Your task to perform on an android device: open app "Google Home" (install if not already installed) Image 0: 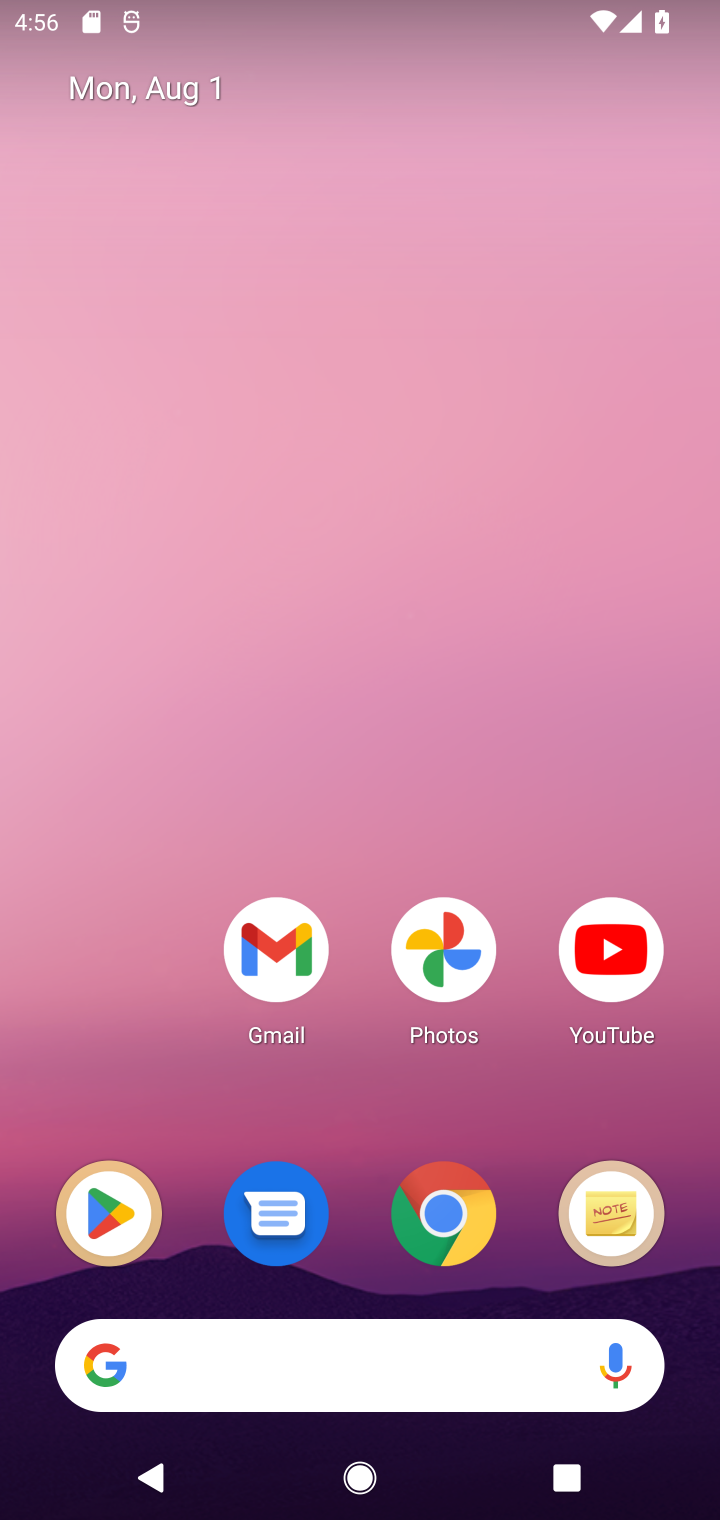
Step 0: drag from (521, 576) to (513, 0)
Your task to perform on an android device: open app "Google Home" (install if not already installed) Image 1: 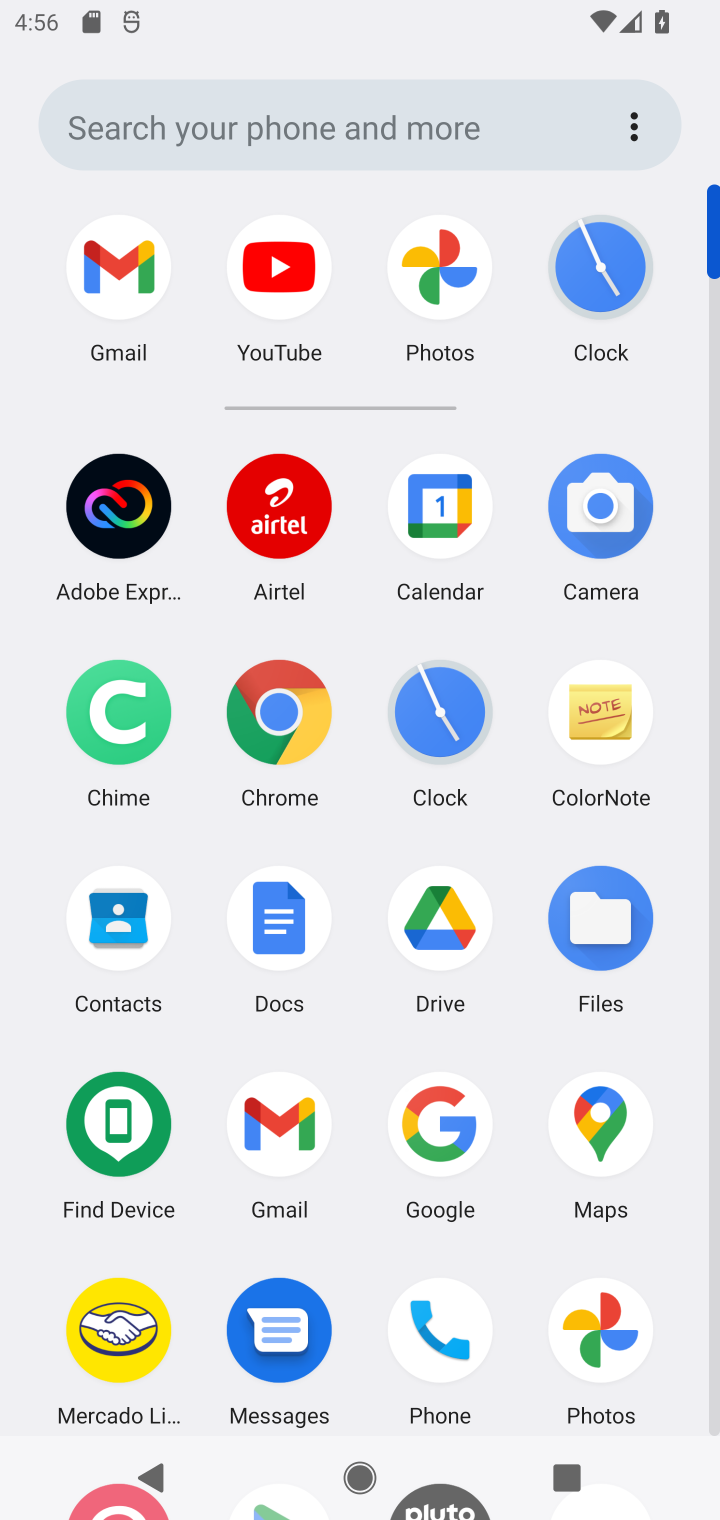
Step 1: drag from (515, 1172) to (514, 301)
Your task to perform on an android device: open app "Google Home" (install if not already installed) Image 2: 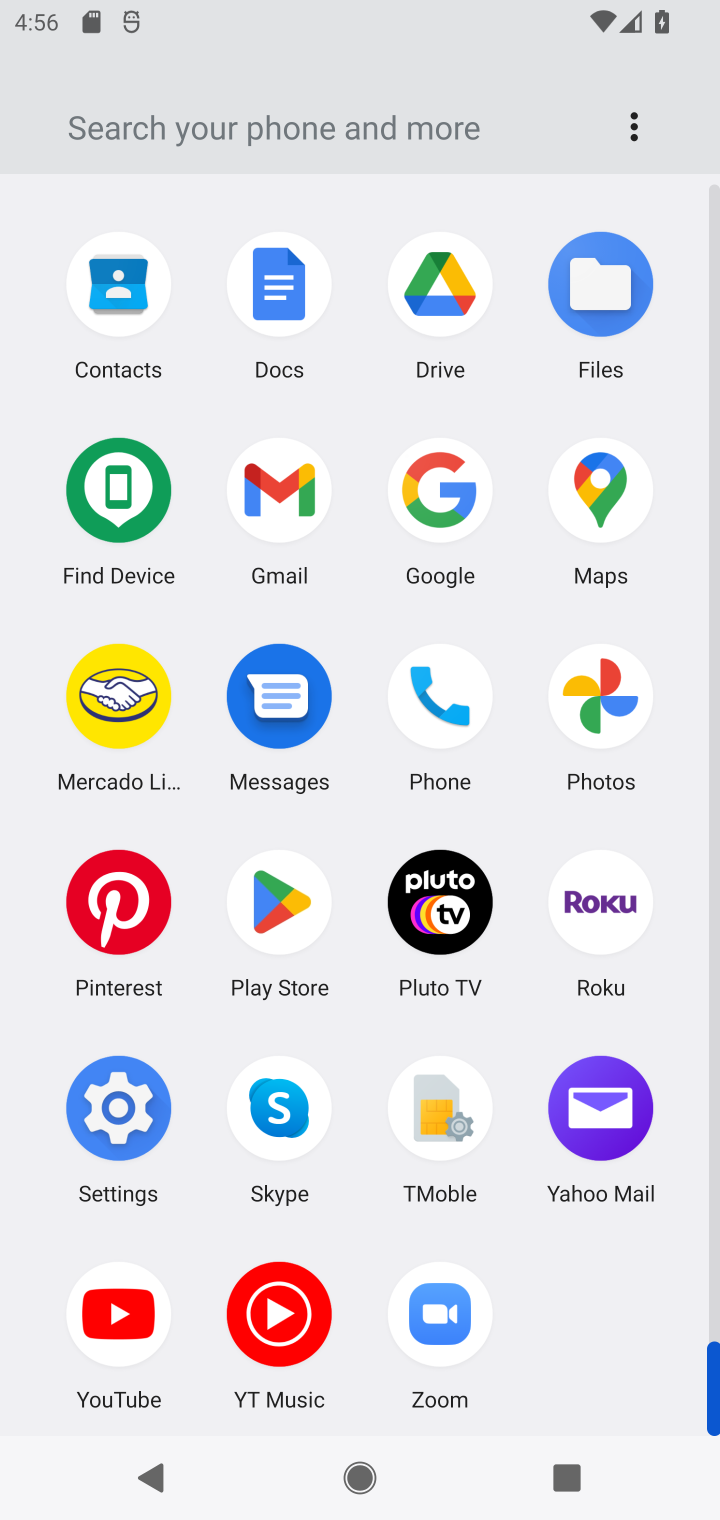
Step 2: click (299, 900)
Your task to perform on an android device: open app "Google Home" (install if not already installed) Image 3: 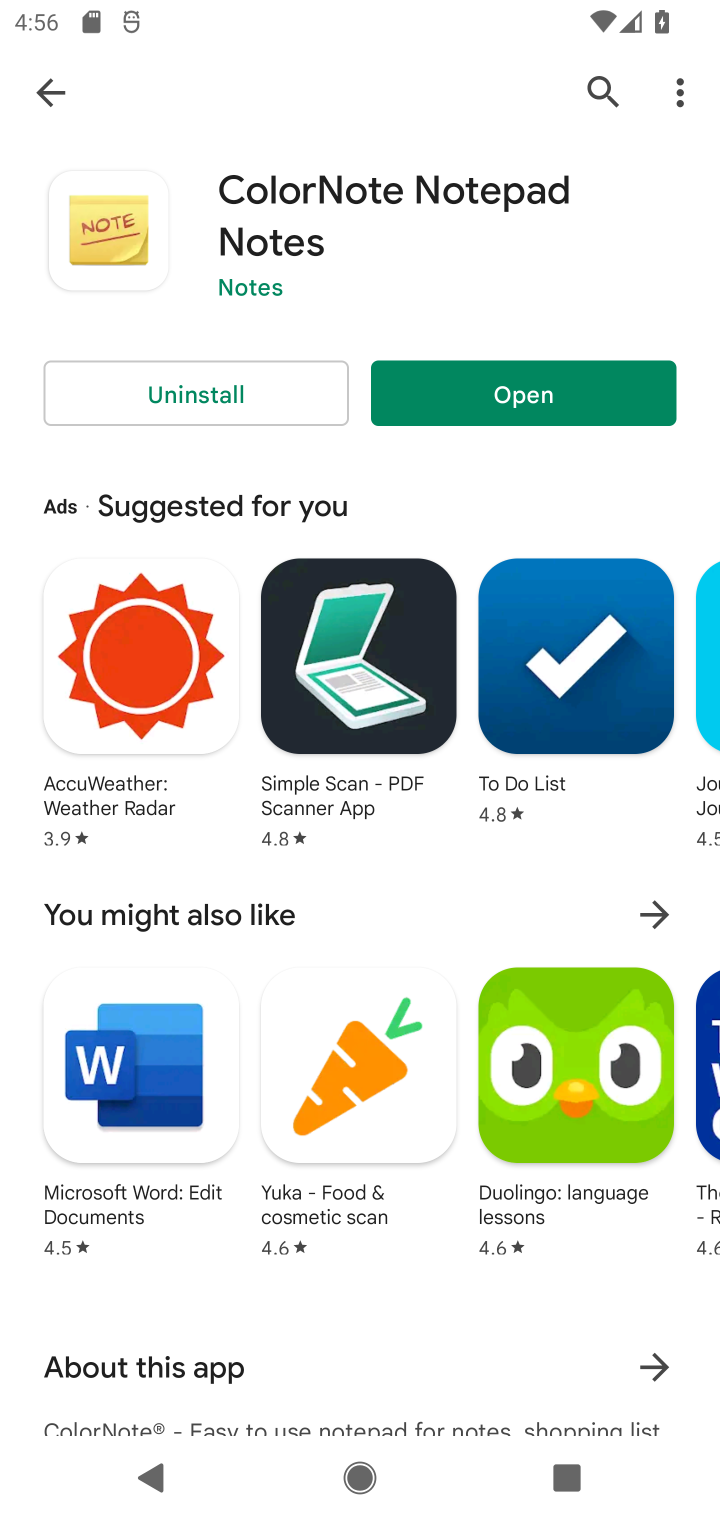
Step 3: click (612, 96)
Your task to perform on an android device: open app "Google Home" (install if not already installed) Image 4: 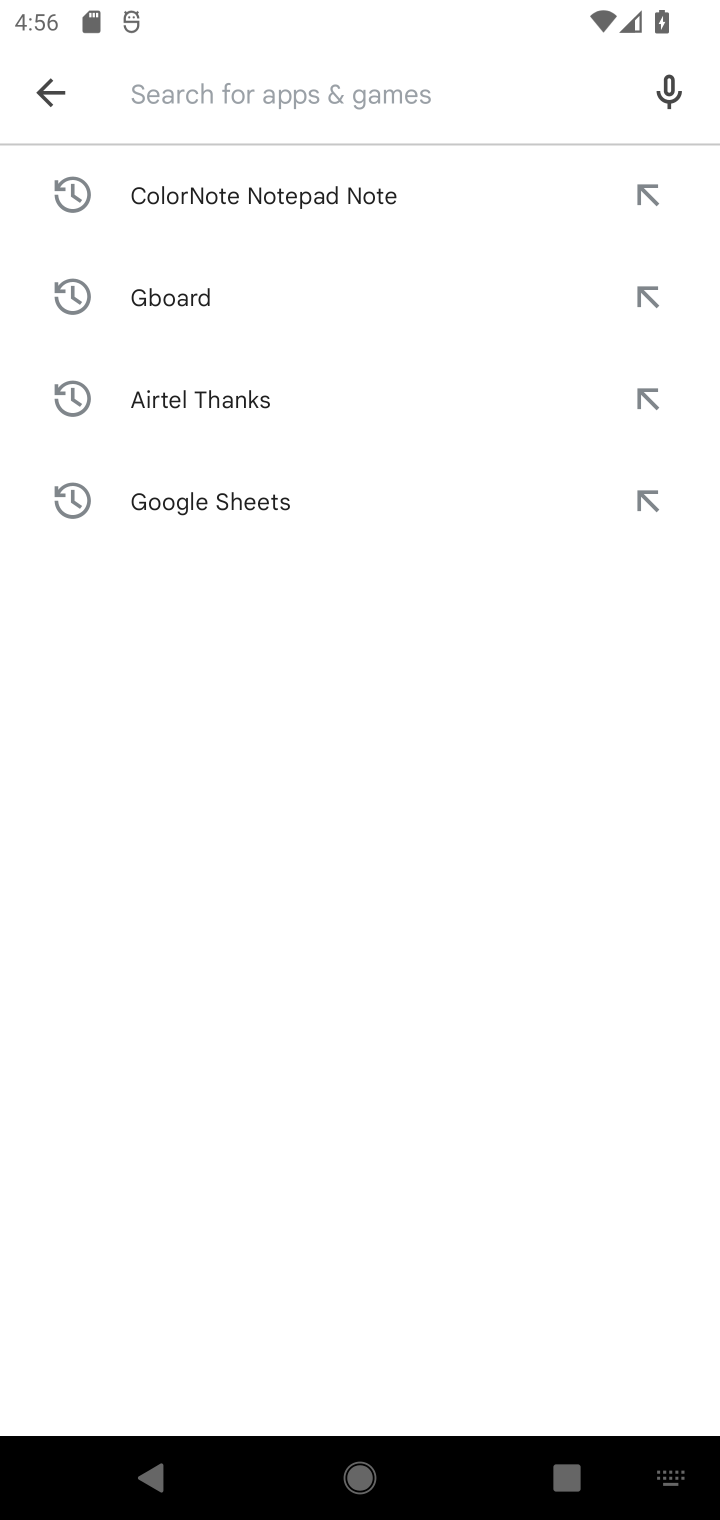
Step 4: type "Google Home"
Your task to perform on an android device: open app "Google Home" (install if not already installed) Image 5: 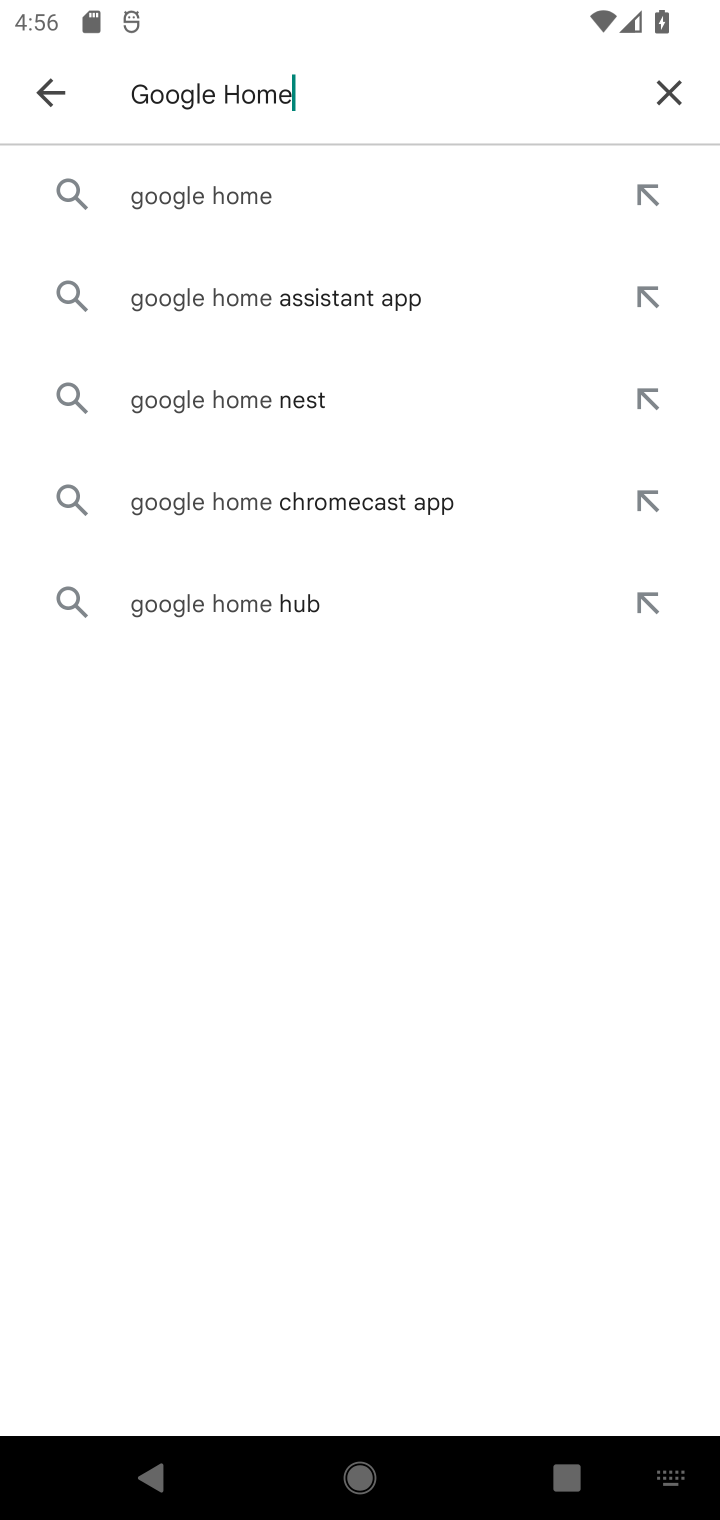
Step 5: press enter
Your task to perform on an android device: open app "Google Home" (install if not already installed) Image 6: 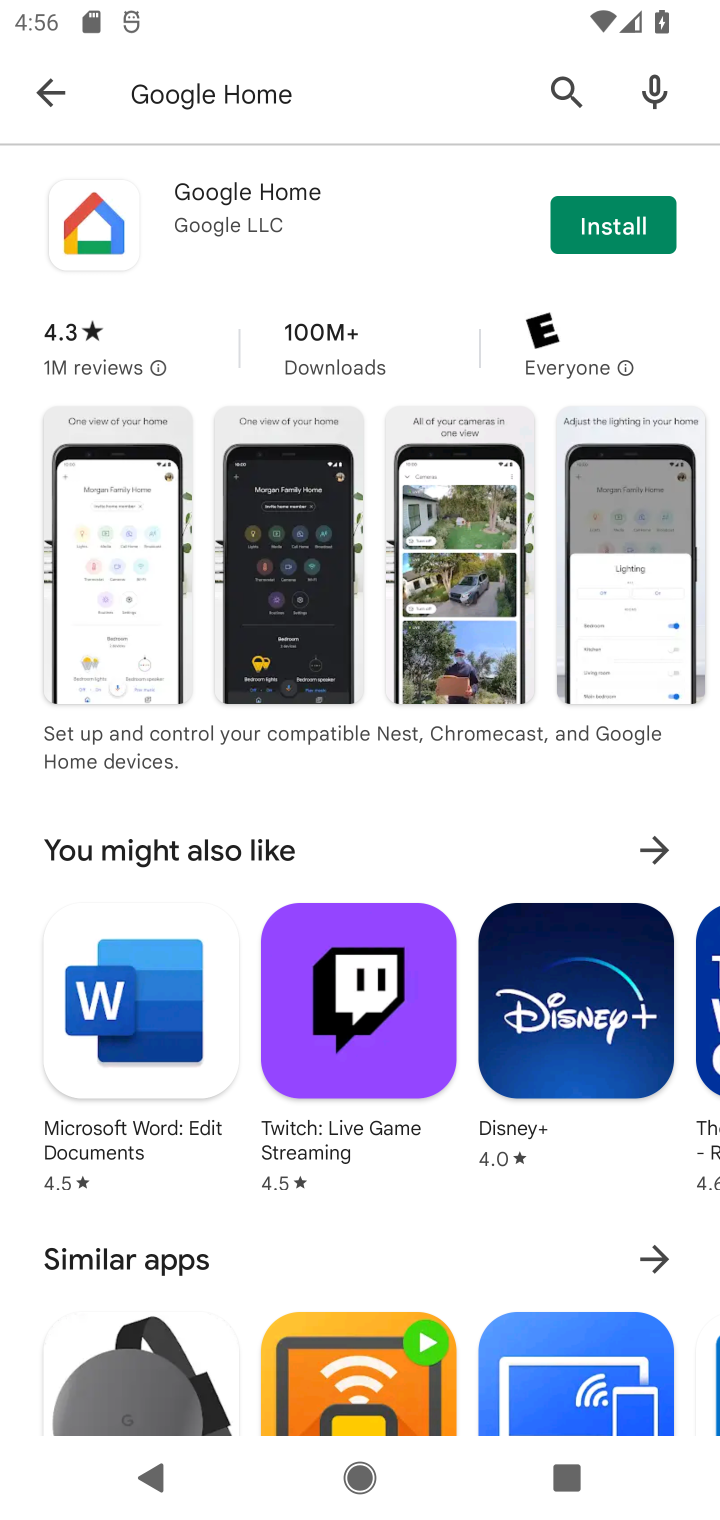
Step 6: click (395, 225)
Your task to perform on an android device: open app "Google Home" (install if not already installed) Image 7: 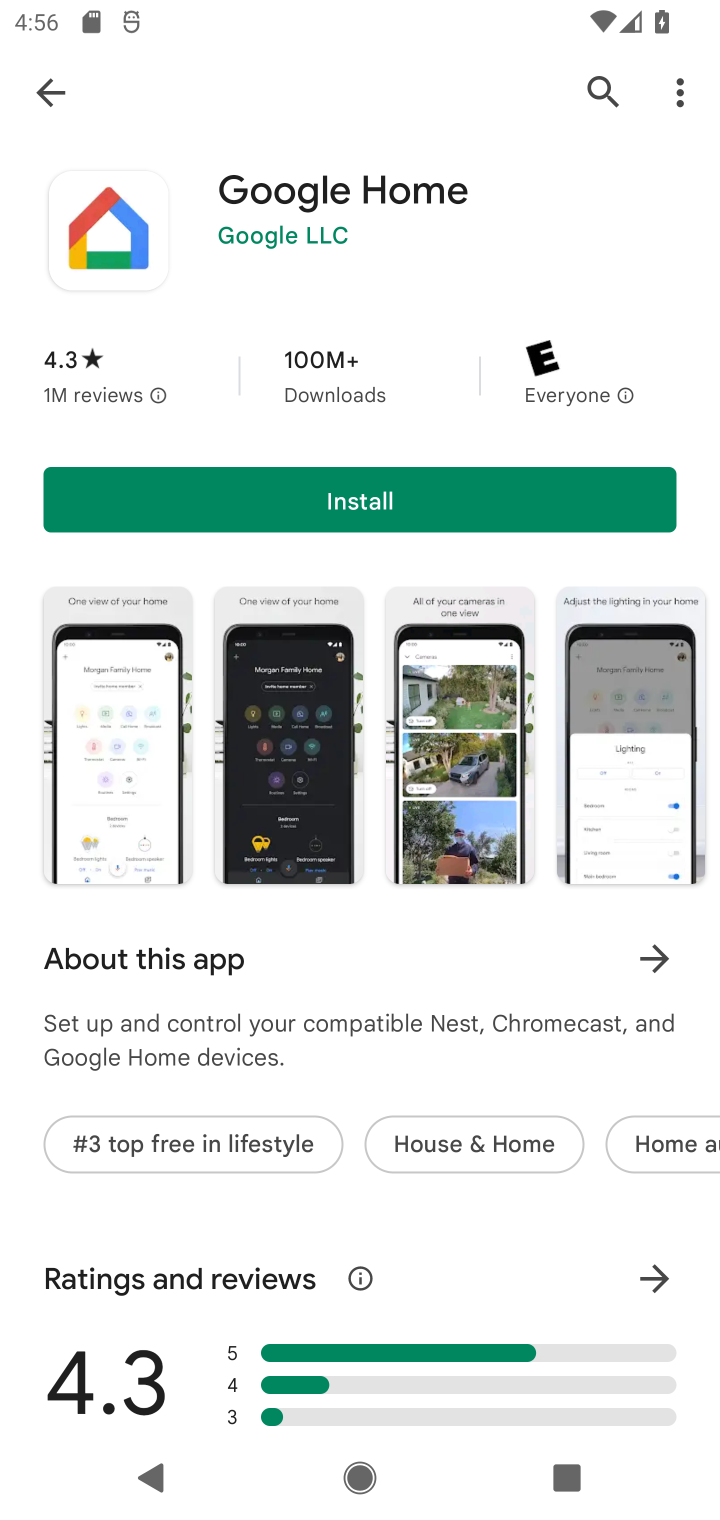
Step 7: click (500, 527)
Your task to perform on an android device: open app "Google Home" (install if not already installed) Image 8: 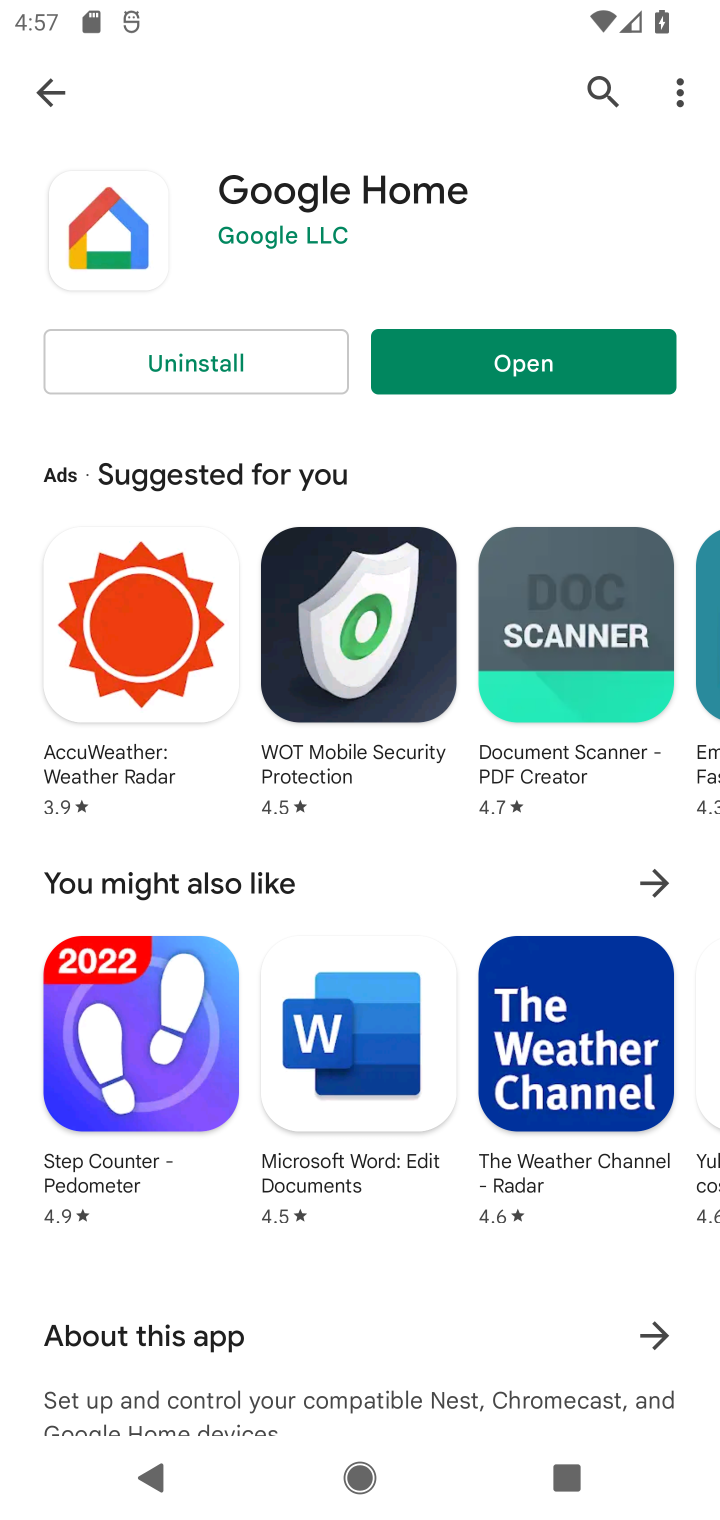
Step 8: click (611, 372)
Your task to perform on an android device: open app "Google Home" (install if not already installed) Image 9: 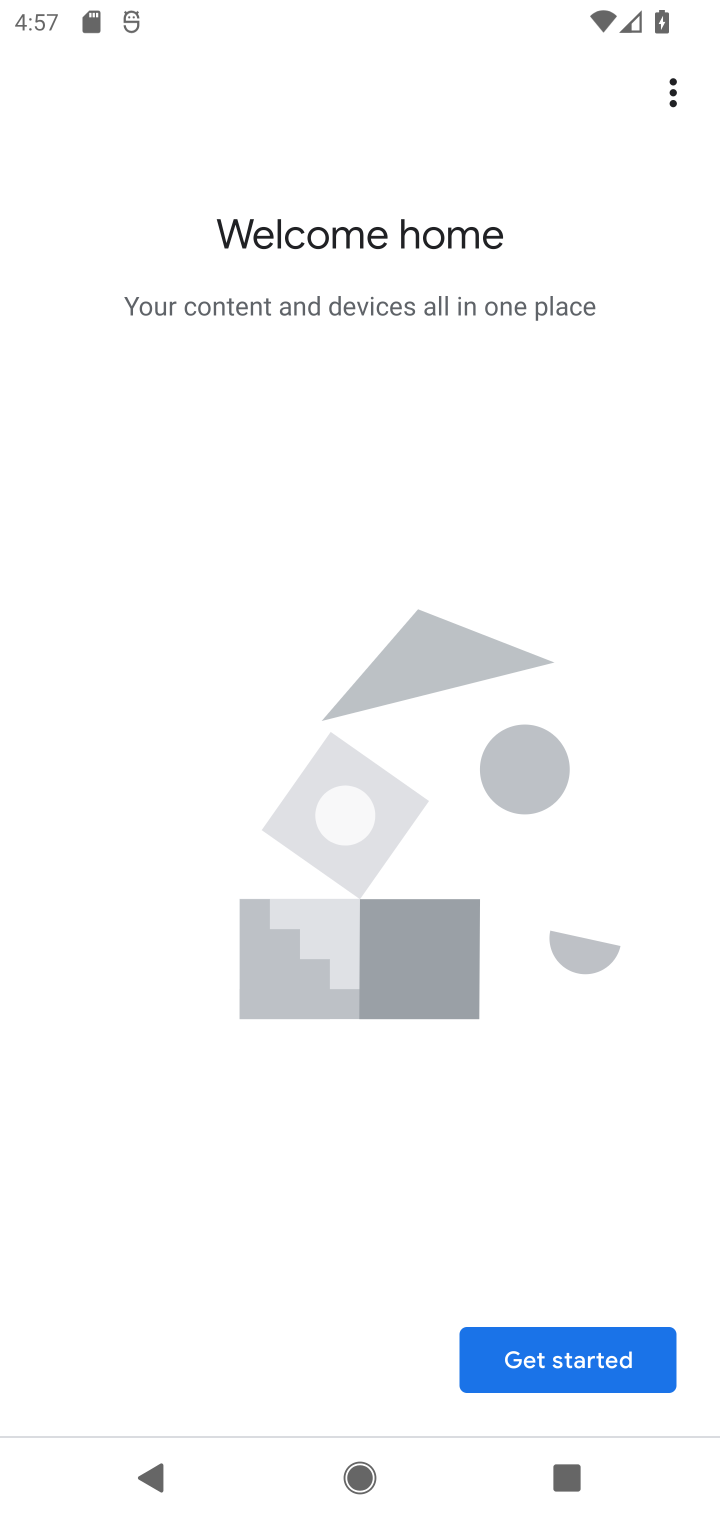
Step 9: task complete